Your task to perform on an android device: toggle pop-ups in chrome Image 0: 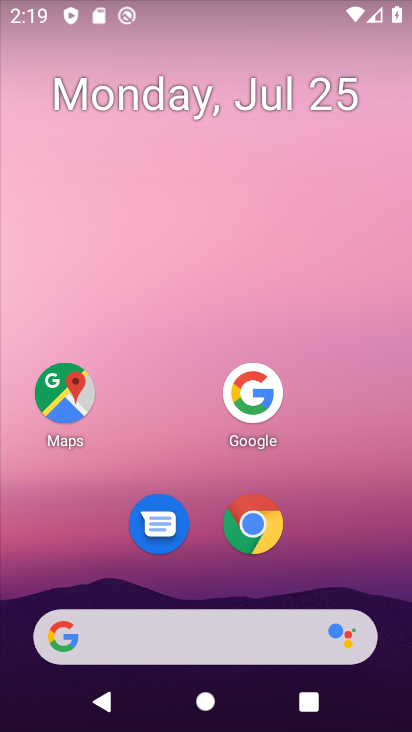
Step 0: press home button
Your task to perform on an android device: toggle pop-ups in chrome Image 1: 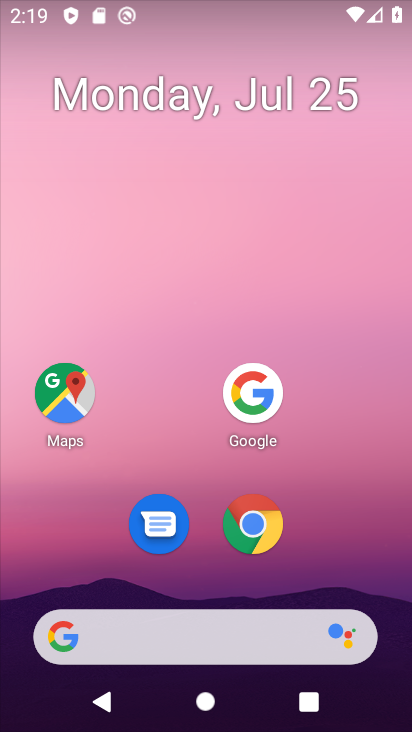
Step 1: click (246, 527)
Your task to perform on an android device: toggle pop-ups in chrome Image 2: 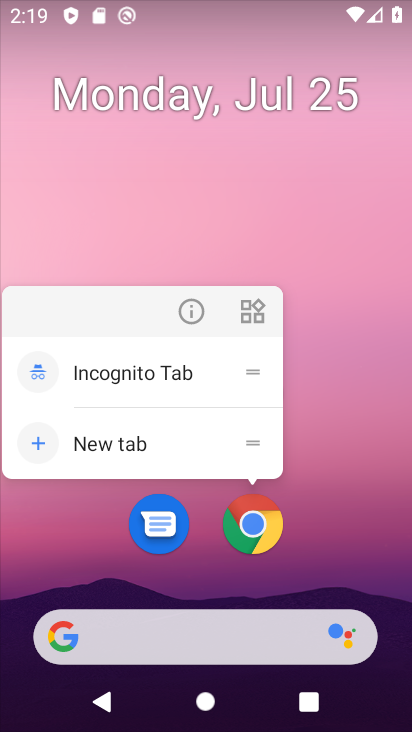
Step 2: click (252, 519)
Your task to perform on an android device: toggle pop-ups in chrome Image 3: 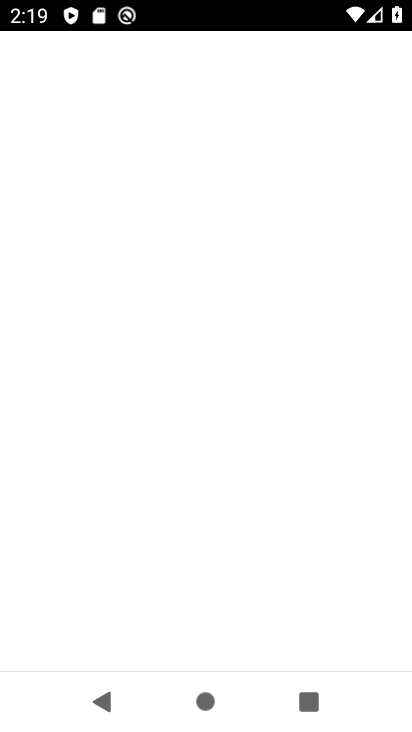
Step 3: click (252, 519)
Your task to perform on an android device: toggle pop-ups in chrome Image 4: 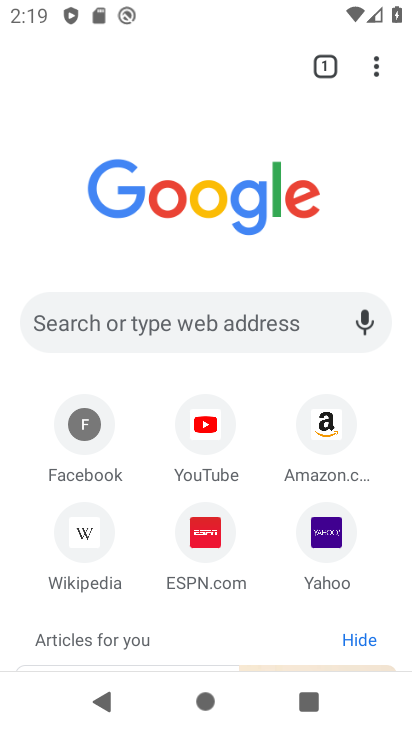
Step 4: click (375, 65)
Your task to perform on an android device: toggle pop-ups in chrome Image 5: 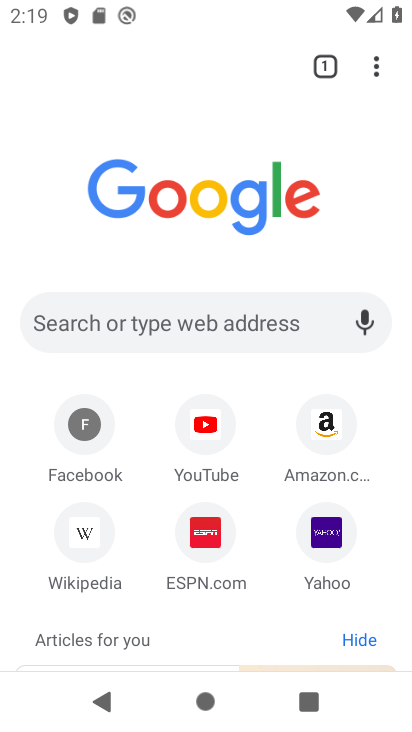
Step 5: drag from (375, 64) to (256, 561)
Your task to perform on an android device: toggle pop-ups in chrome Image 6: 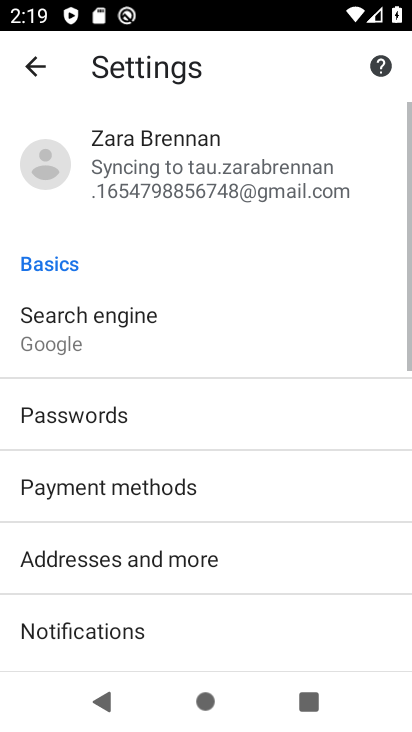
Step 6: drag from (240, 551) to (331, 264)
Your task to perform on an android device: toggle pop-ups in chrome Image 7: 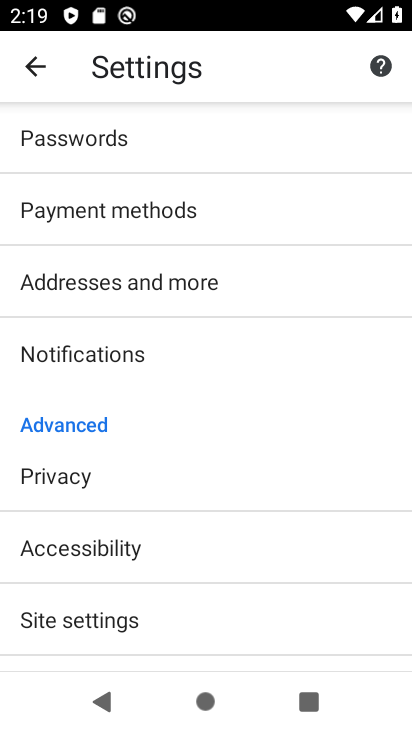
Step 7: drag from (215, 579) to (272, 362)
Your task to perform on an android device: toggle pop-ups in chrome Image 8: 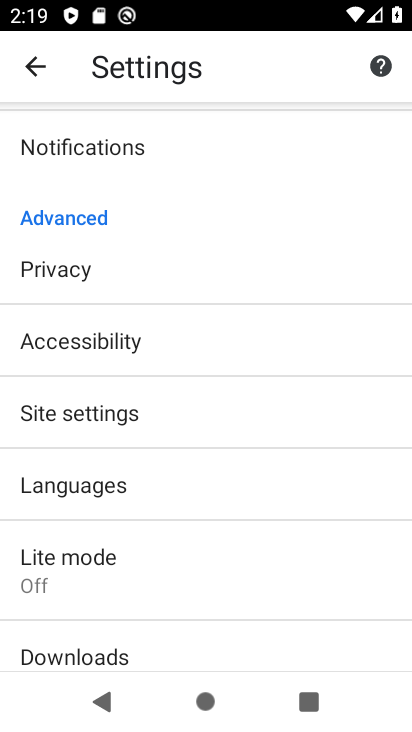
Step 8: click (130, 421)
Your task to perform on an android device: toggle pop-ups in chrome Image 9: 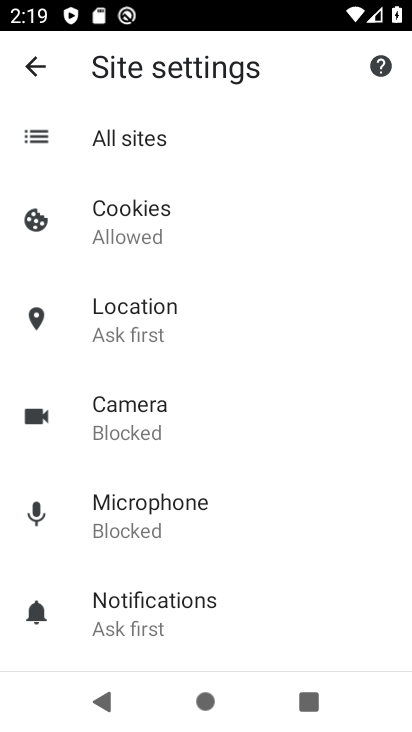
Step 9: drag from (241, 571) to (295, 71)
Your task to perform on an android device: toggle pop-ups in chrome Image 10: 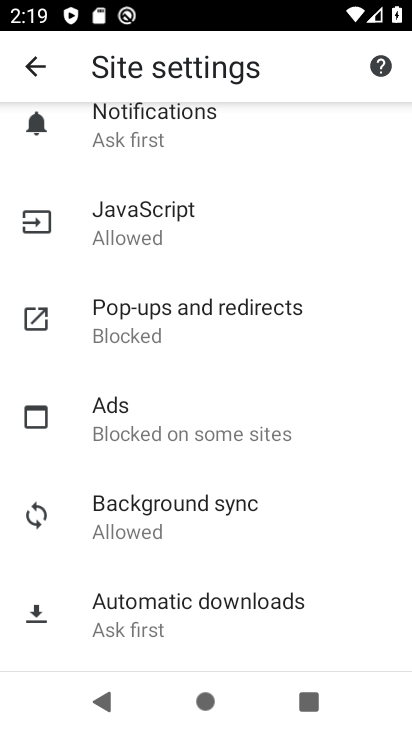
Step 10: click (165, 314)
Your task to perform on an android device: toggle pop-ups in chrome Image 11: 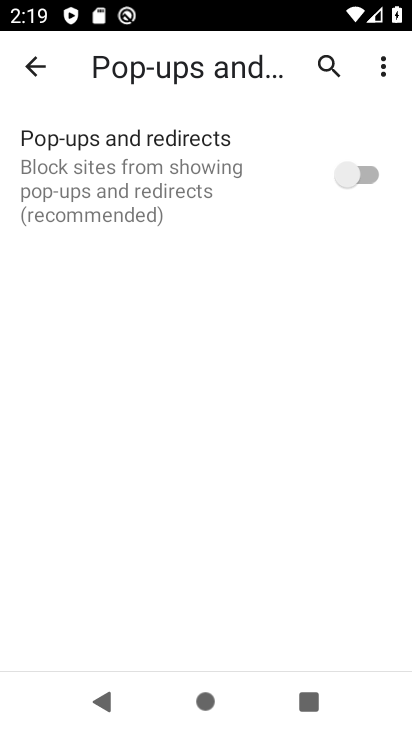
Step 11: click (365, 174)
Your task to perform on an android device: toggle pop-ups in chrome Image 12: 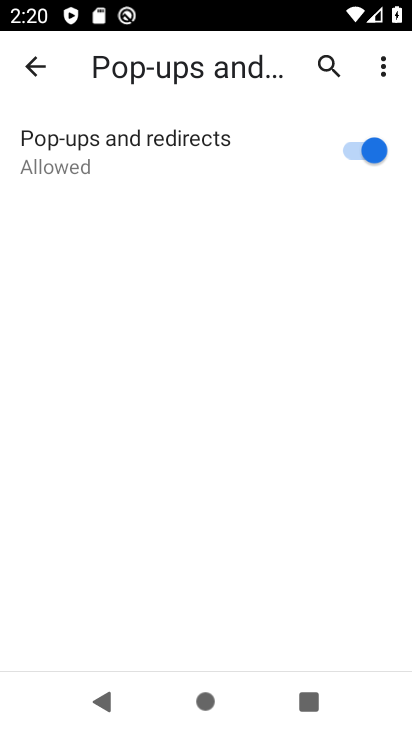
Step 12: task complete